Your task to perform on an android device: What is the news today? Image 0: 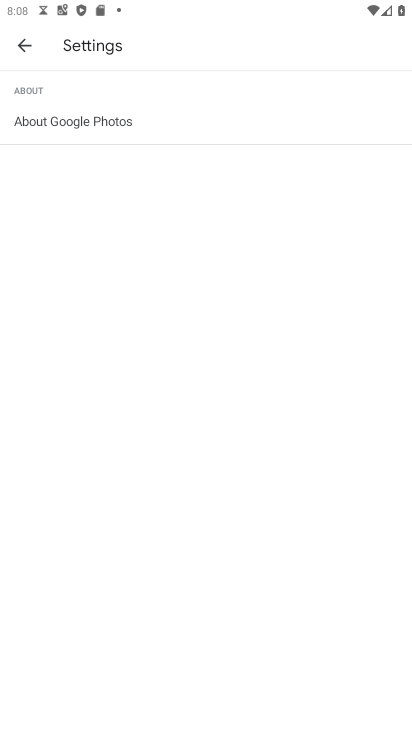
Step 0: press home button
Your task to perform on an android device: What is the news today? Image 1: 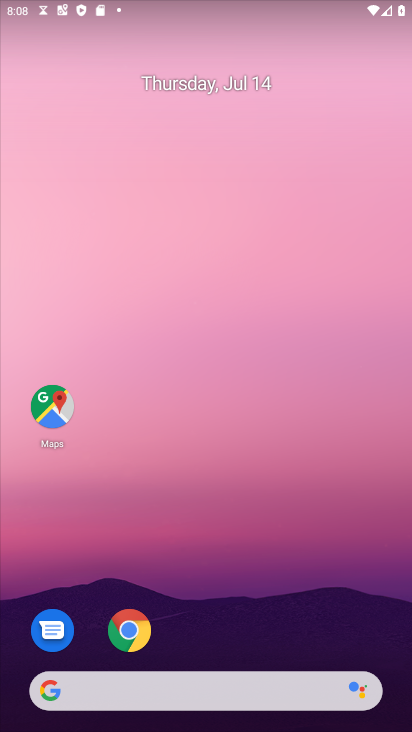
Step 1: click (192, 689)
Your task to perform on an android device: What is the news today? Image 2: 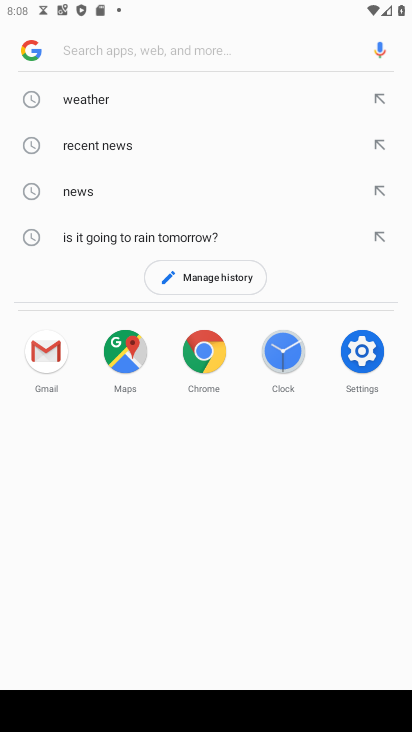
Step 2: type "what is the news today"
Your task to perform on an android device: What is the news today? Image 3: 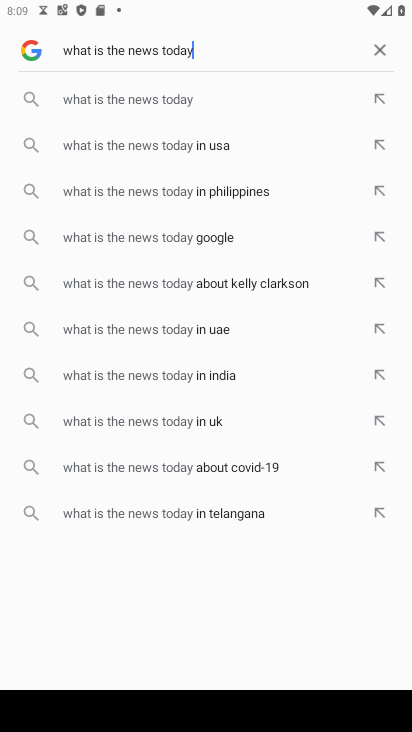
Step 3: click (187, 105)
Your task to perform on an android device: What is the news today? Image 4: 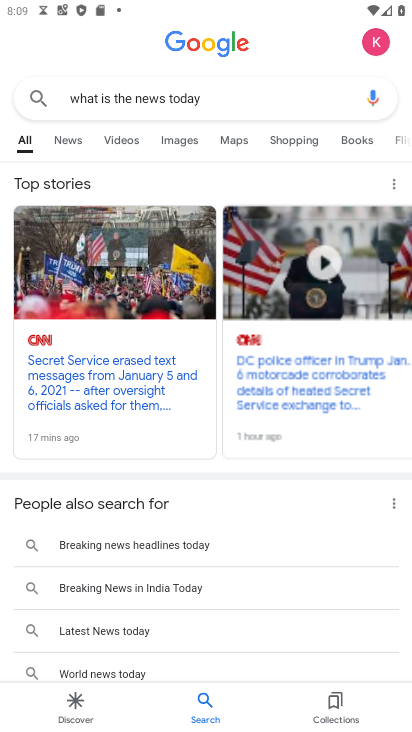
Step 4: click (59, 135)
Your task to perform on an android device: What is the news today? Image 5: 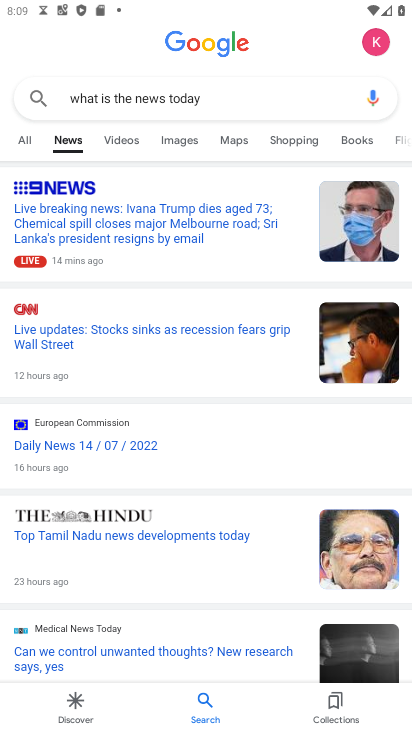
Step 5: task complete